Your task to perform on an android device: turn on the 24-hour format for clock Image 0: 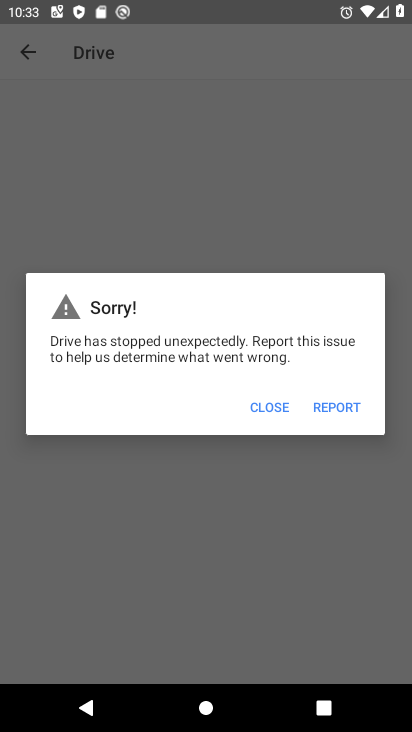
Step 0: press home button
Your task to perform on an android device: turn on the 24-hour format for clock Image 1: 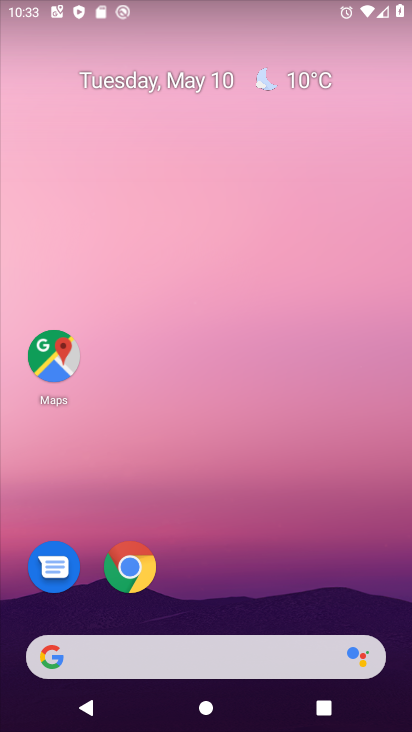
Step 1: drag from (319, 518) to (289, 4)
Your task to perform on an android device: turn on the 24-hour format for clock Image 2: 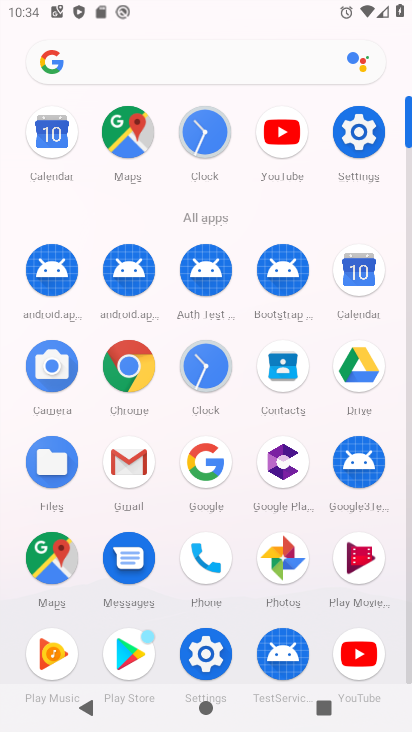
Step 2: click (209, 134)
Your task to perform on an android device: turn on the 24-hour format for clock Image 3: 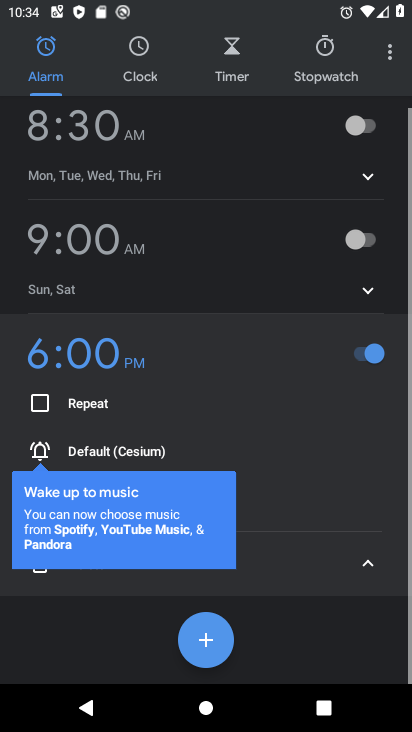
Step 3: click (386, 47)
Your task to perform on an android device: turn on the 24-hour format for clock Image 4: 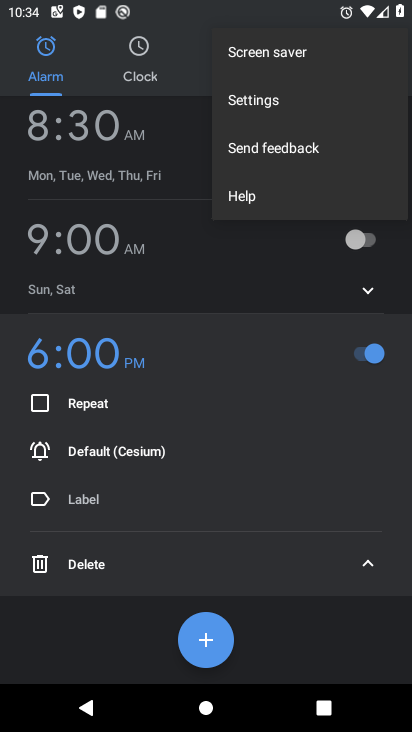
Step 4: click (255, 113)
Your task to perform on an android device: turn on the 24-hour format for clock Image 5: 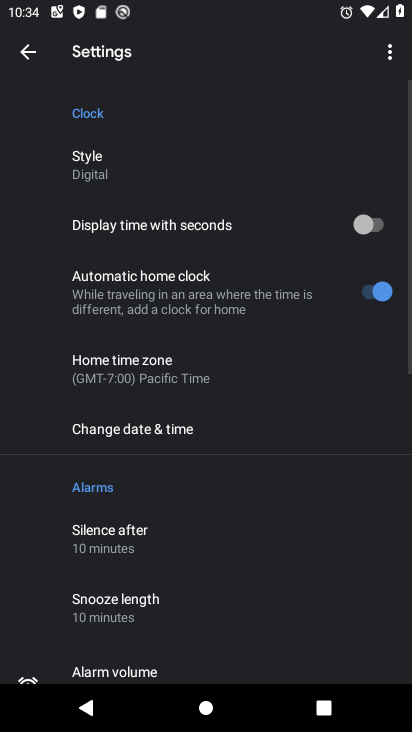
Step 5: click (191, 438)
Your task to perform on an android device: turn on the 24-hour format for clock Image 6: 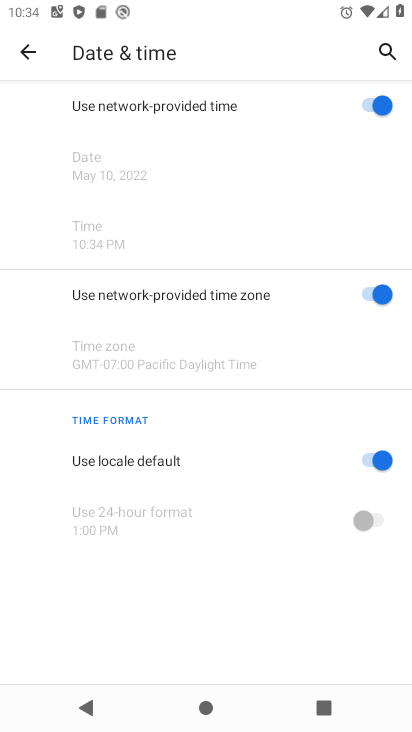
Step 6: click (373, 461)
Your task to perform on an android device: turn on the 24-hour format for clock Image 7: 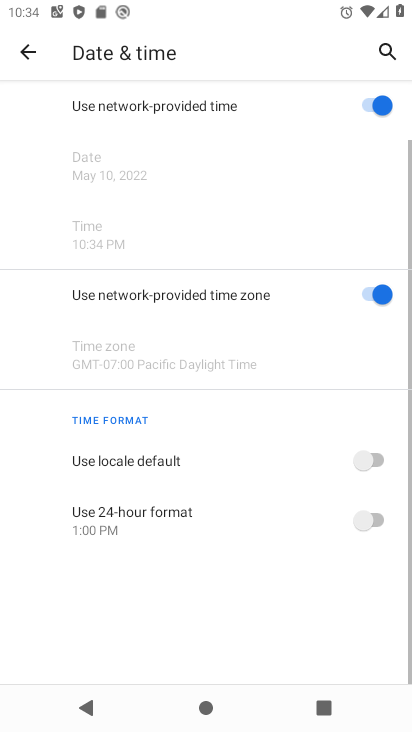
Step 7: click (355, 518)
Your task to perform on an android device: turn on the 24-hour format for clock Image 8: 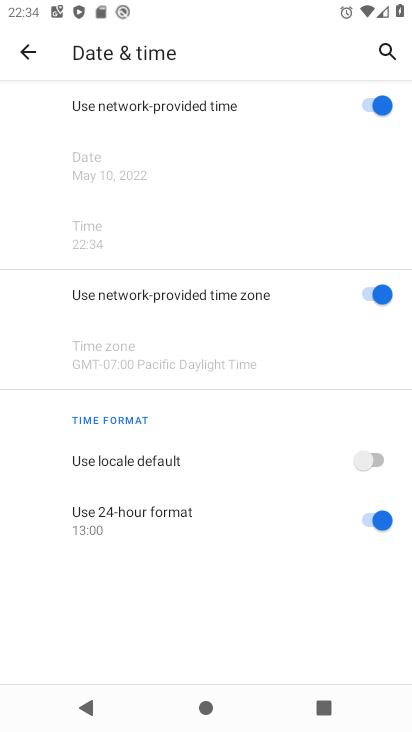
Step 8: task complete